Your task to perform on an android device: Open CNN.com Image 0: 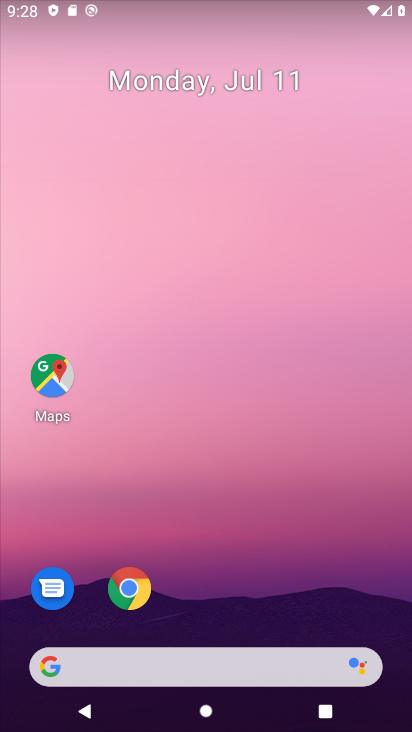
Step 0: click (127, 578)
Your task to perform on an android device: Open CNN.com Image 1: 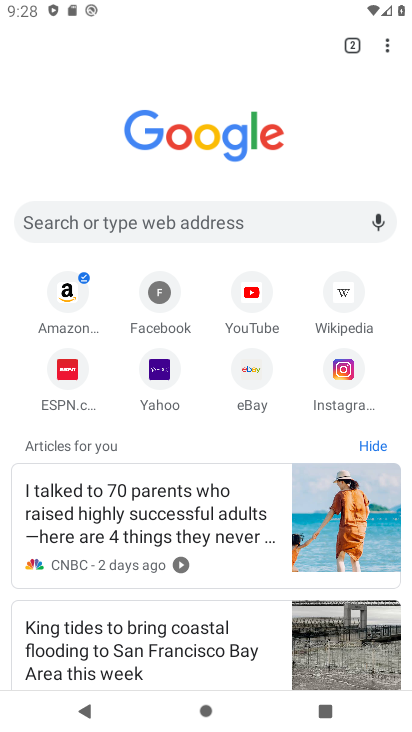
Step 1: click (257, 222)
Your task to perform on an android device: Open CNN.com Image 2: 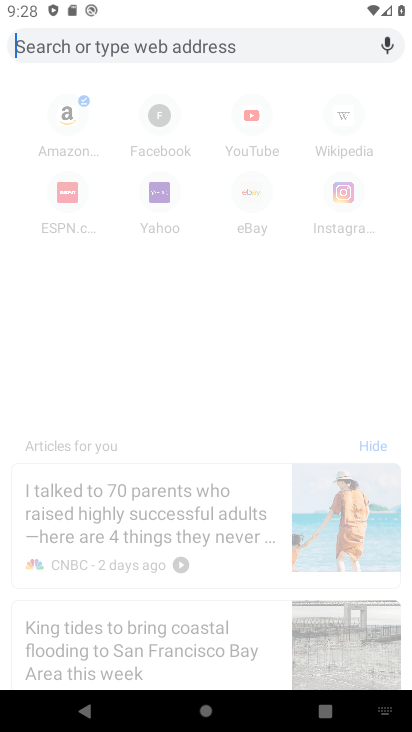
Step 2: type "CNN.com"
Your task to perform on an android device: Open CNN.com Image 3: 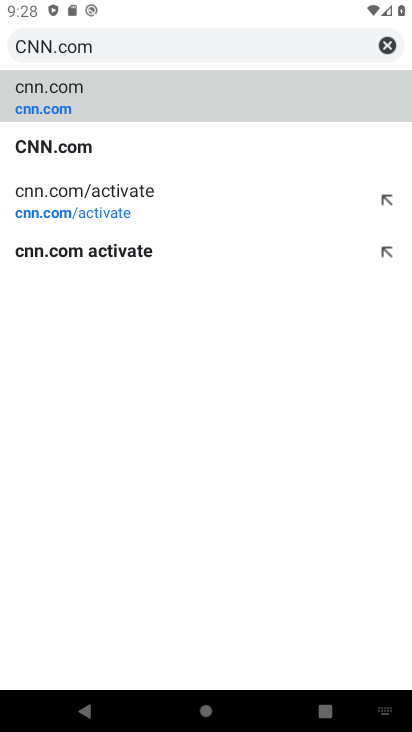
Step 3: click (276, 79)
Your task to perform on an android device: Open CNN.com Image 4: 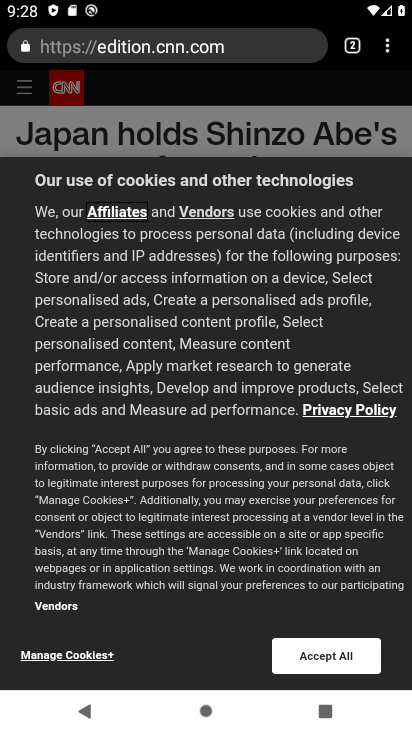
Step 4: task complete